Your task to perform on an android device: Go to accessibility settings Image 0: 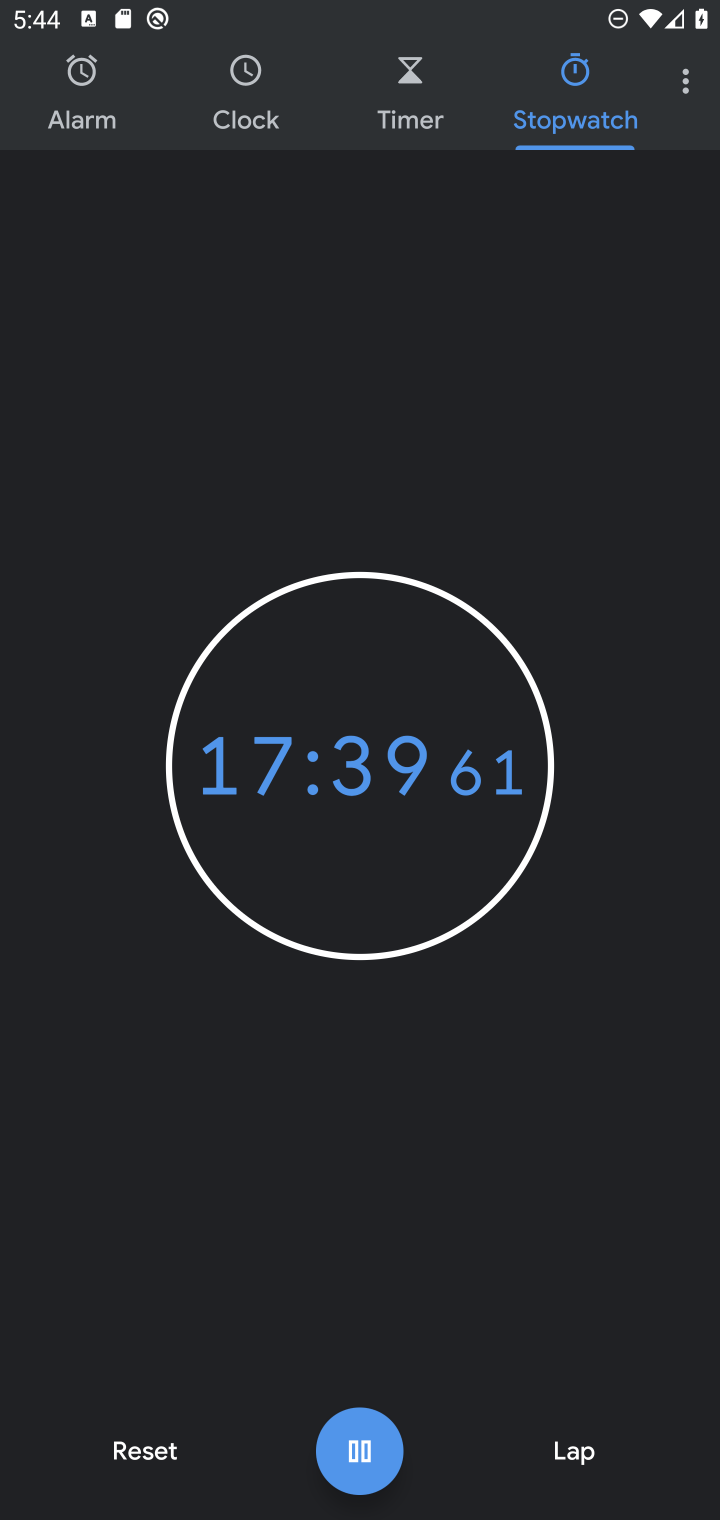
Step 0: click (681, 86)
Your task to perform on an android device: Go to accessibility settings Image 1: 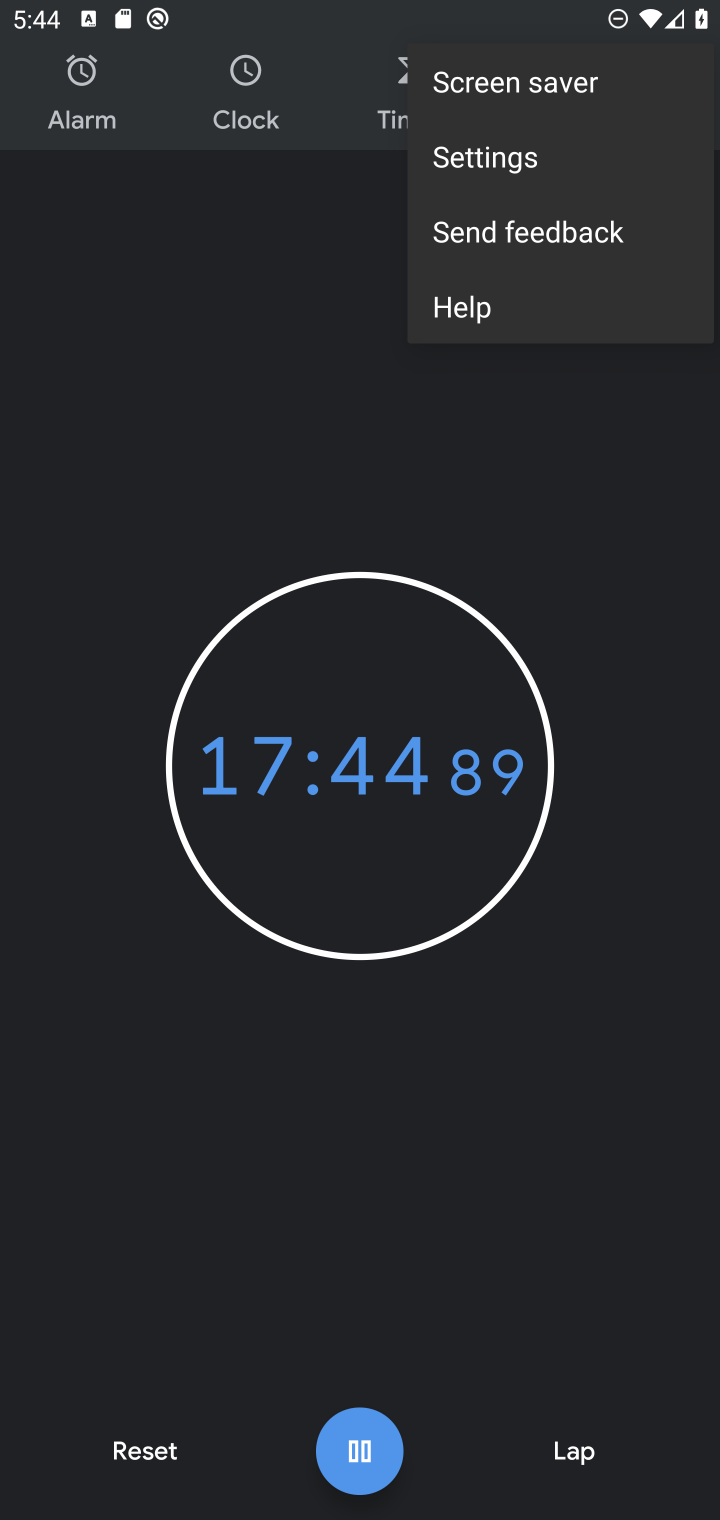
Step 1: click (482, 149)
Your task to perform on an android device: Go to accessibility settings Image 2: 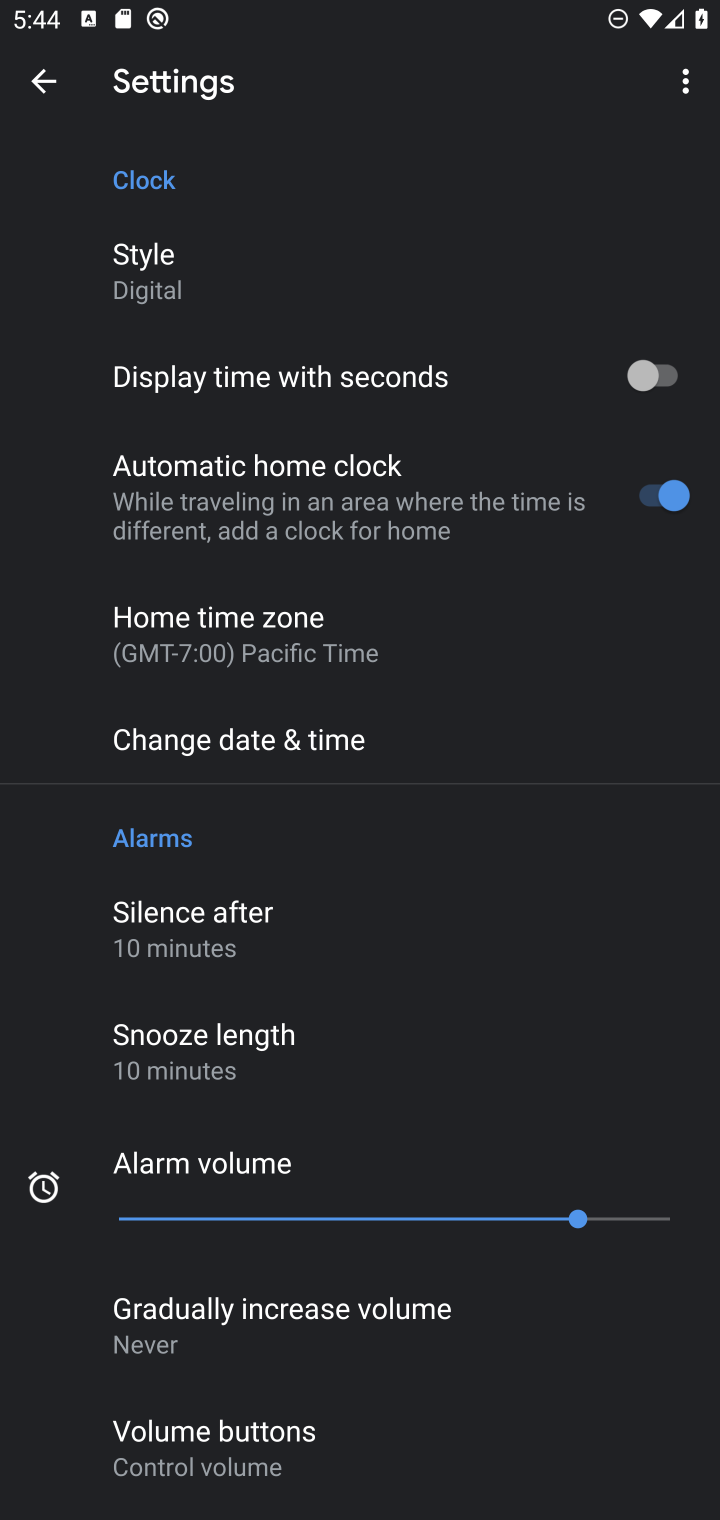
Step 2: press home button
Your task to perform on an android device: Go to accessibility settings Image 3: 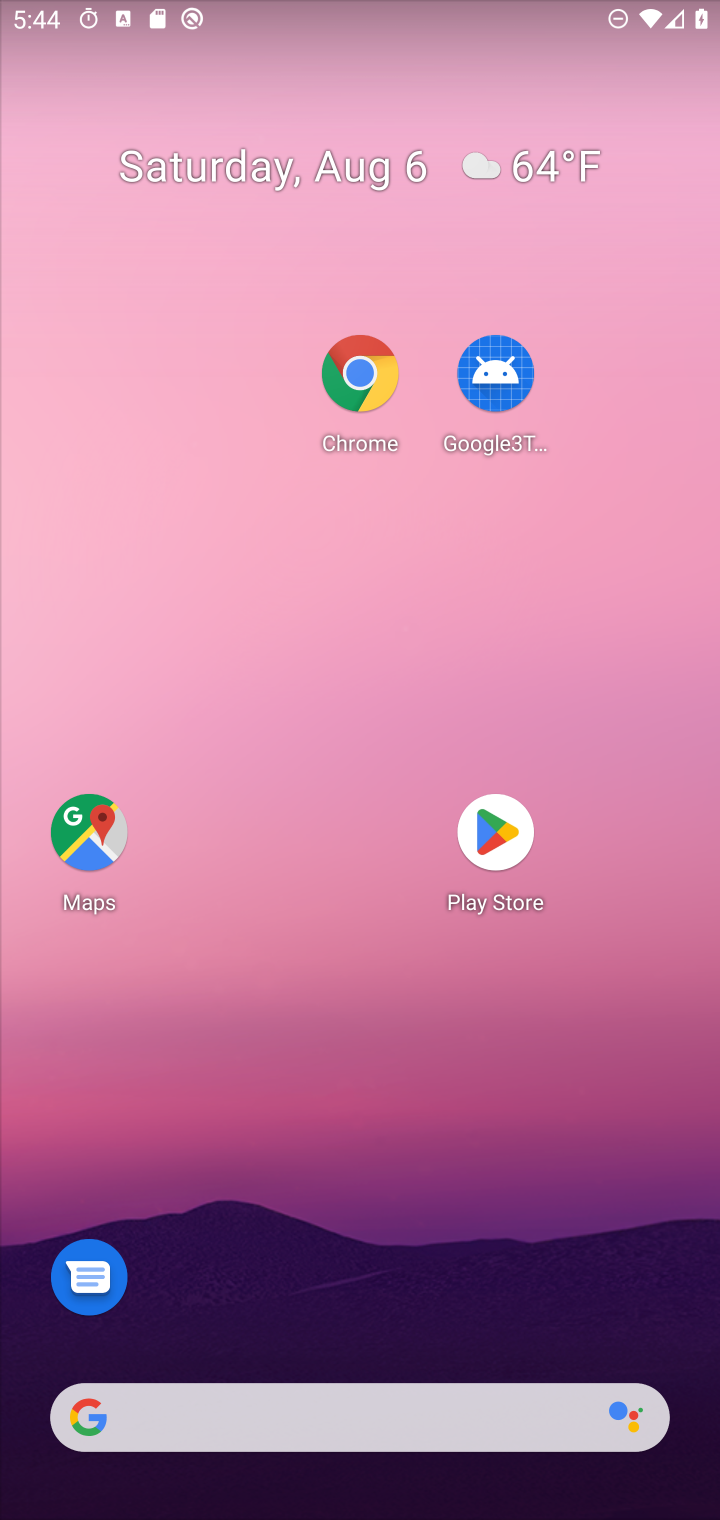
Step 3: drag from (458, 1405) to (499, 1045)
Your task to perform on an android device: Go to accessibility settings Image 4: 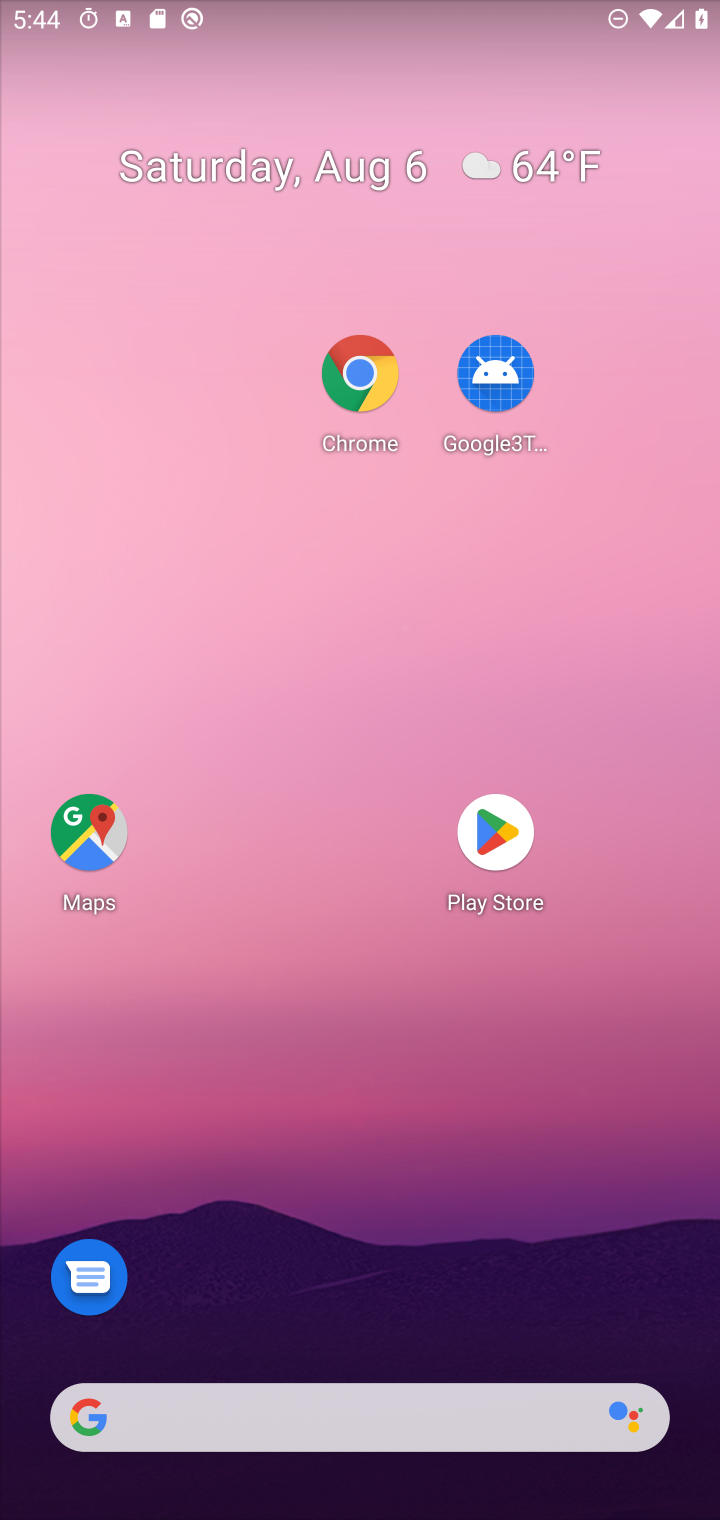
Step 4: drag from (429, 1389) to (273, 27)
Your task to perform on an android device: Go to accessibility settings Image 5: 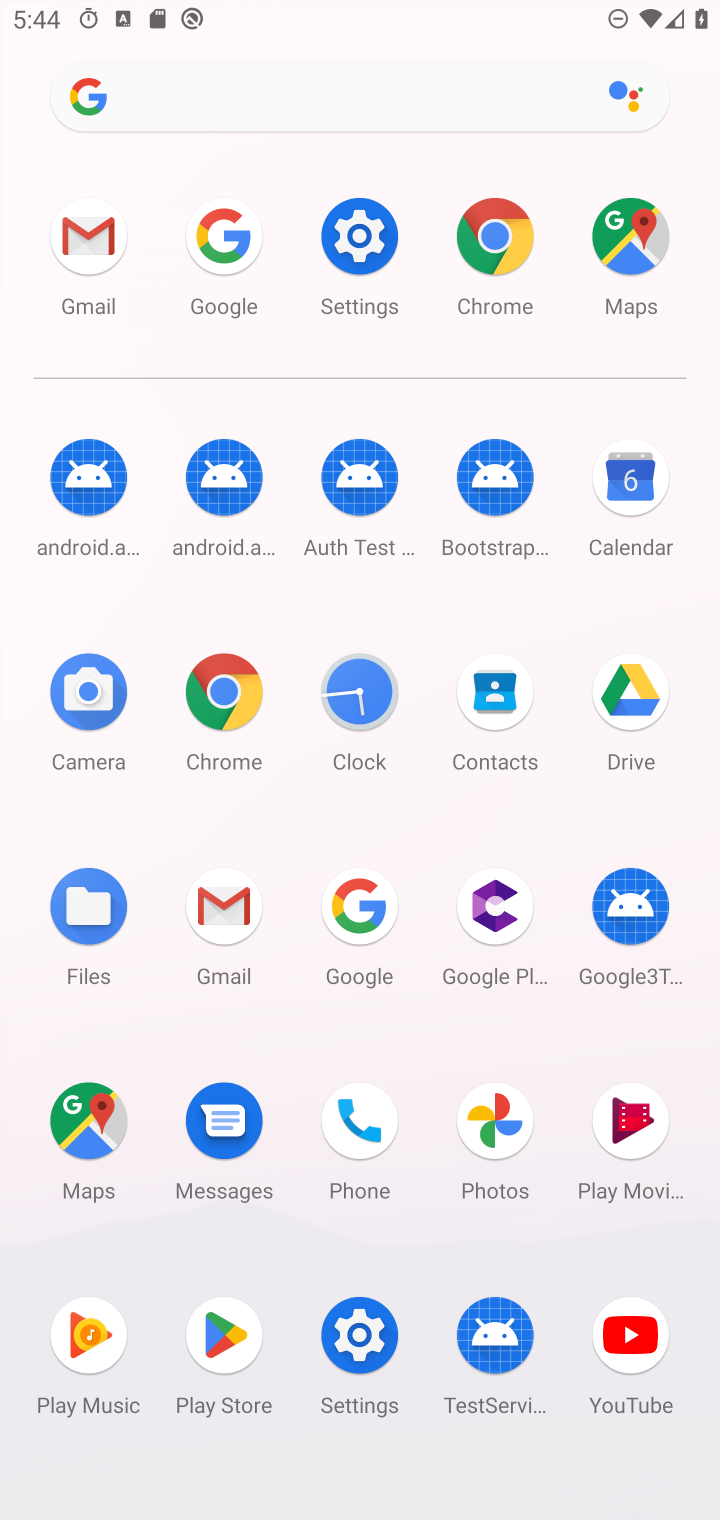
Step 5: click (358, 212)
Your task to perform on an android device: Go to accessibility settings Image 6: 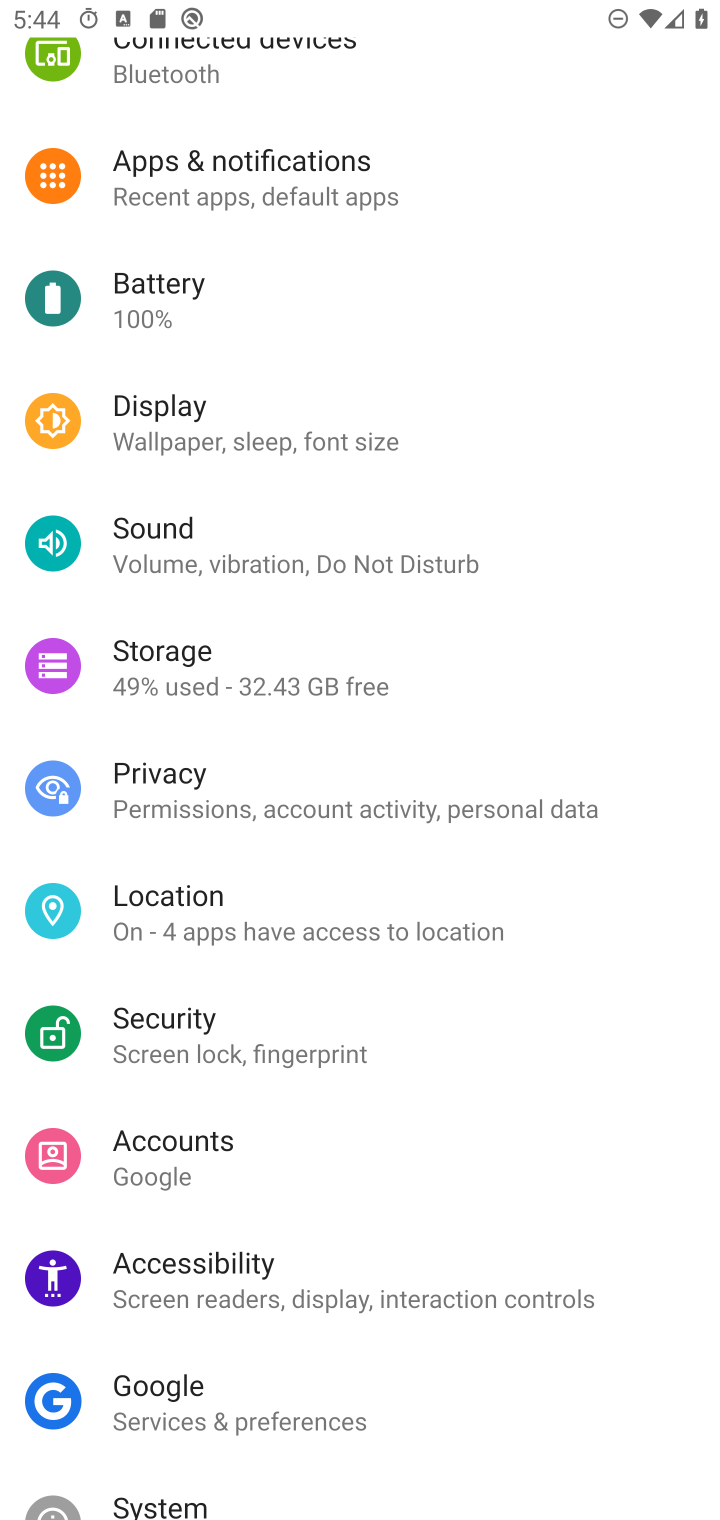
Step 6: click (114, 1285)
Your task to perform on an android device: Go to accessibility settings Image 7: 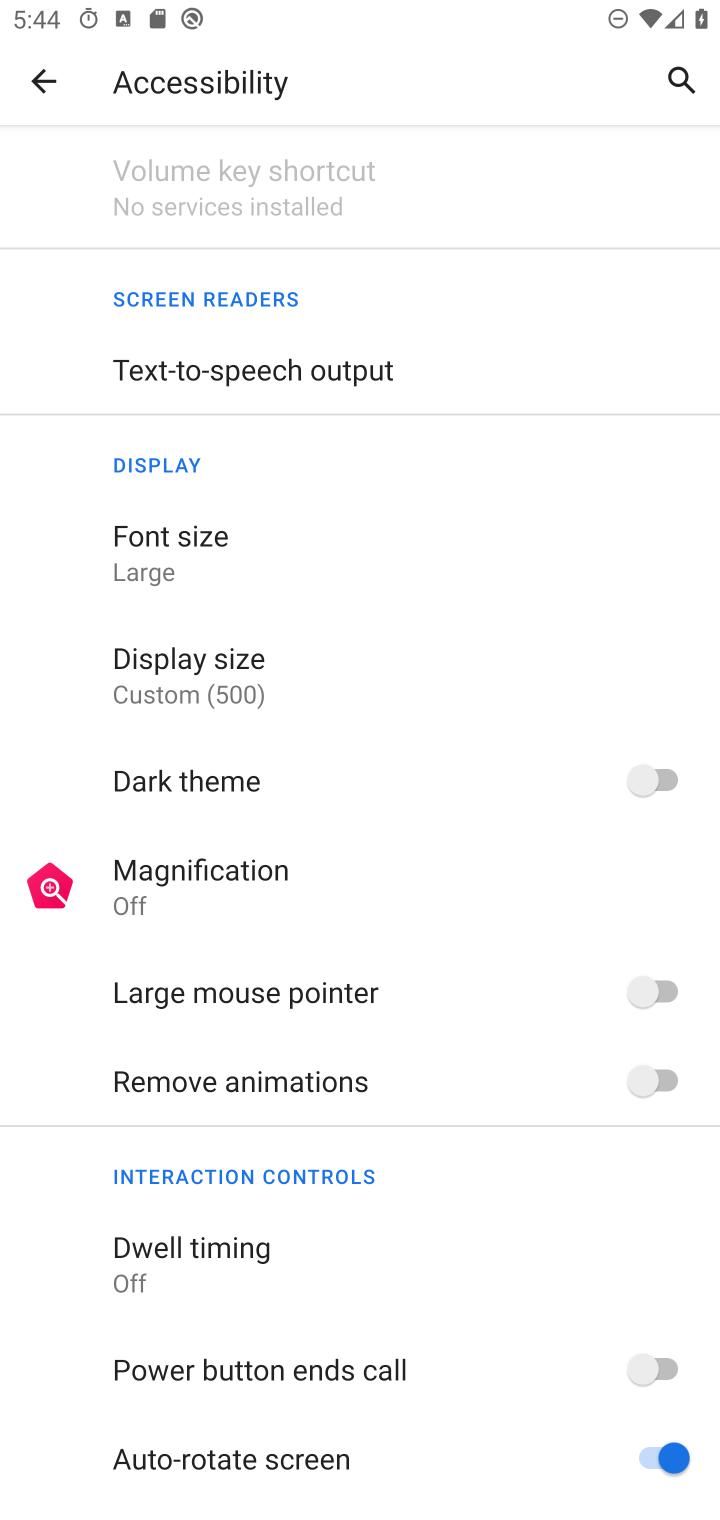
Step 7: task complete